Your task to perform on an android device: Turn on the flashlight Image 0: 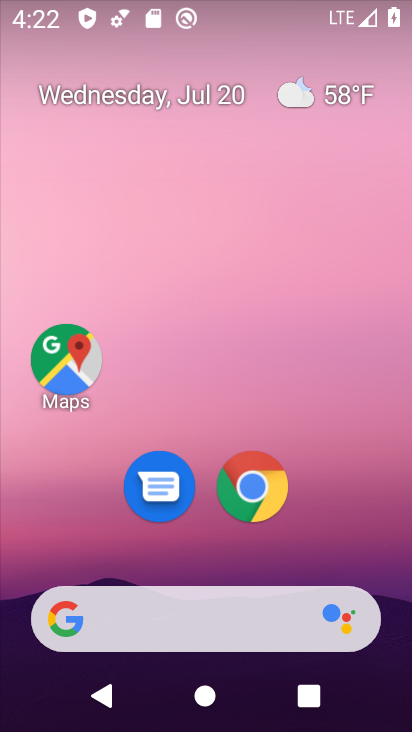
Step 0: drag from (198, 542) to (135, 22)
Your task to perform on an android device: Turn on the flashlight Image 1: 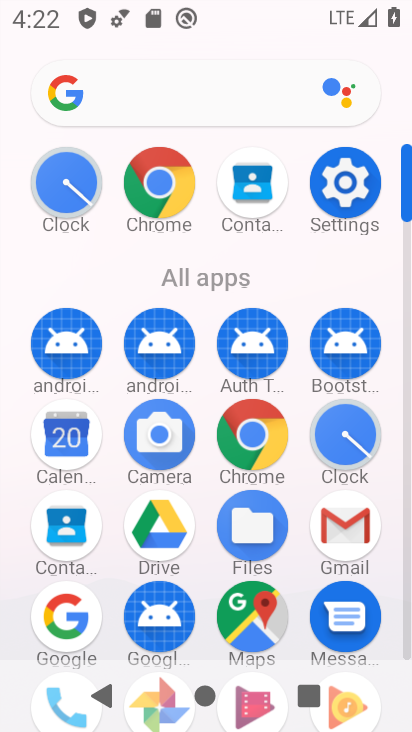
Step 1: click (356, 166)
Your task to perform on an android device: Turn on the flashlight Image 2: 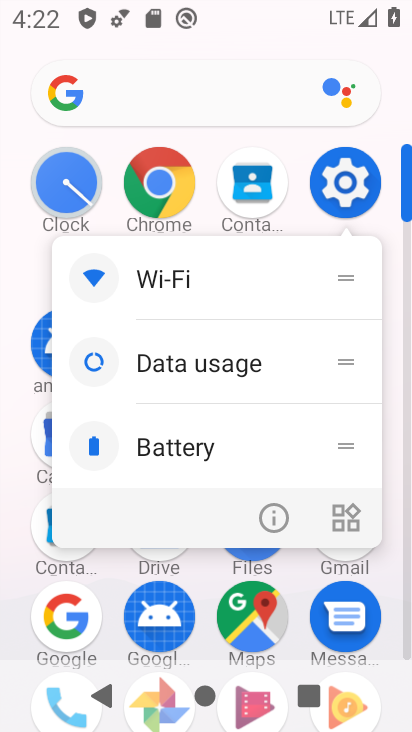
Step 2: click (342, 196)
Your task to perform on an android device: Turn on the flashlight Image 3: 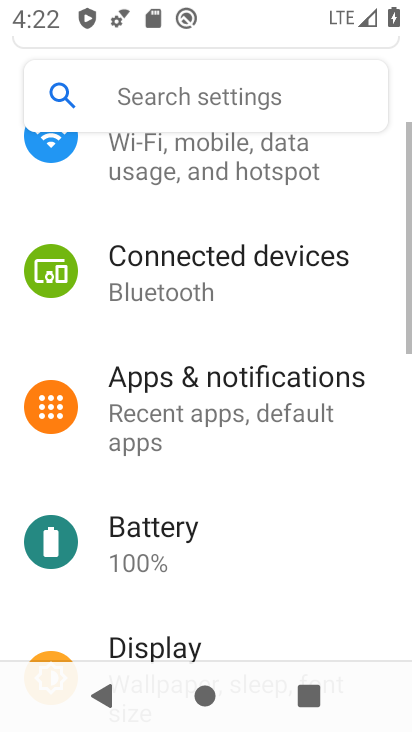
Step 3: click (207, 95)
Your task to perform on an android device: Turn on the flashlight Image 4: 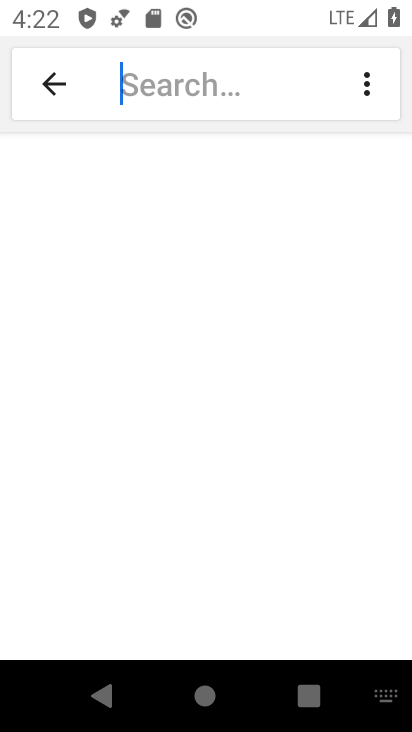
Step 4: type "flashlight"
Your task to perform on an android device: Turn on the flashlight Image 5: 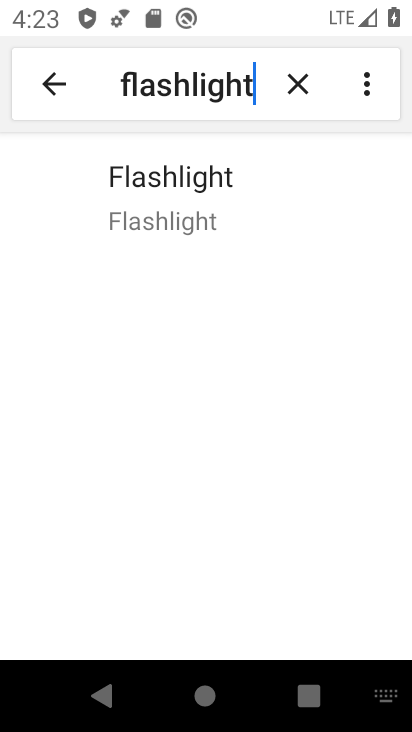
Step 5: click (150, 184)
Your task to perform on an android device: Turn on the flashlight Image 6: 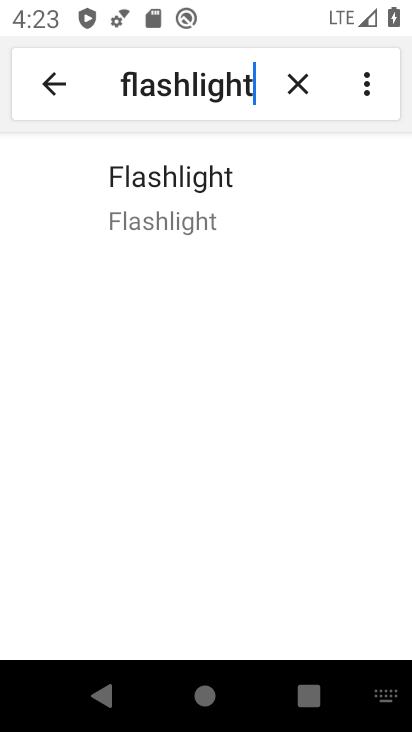
Step 6: click (148, 197)
Your task to perform on an android device: Turn on the flashlight Image 7: 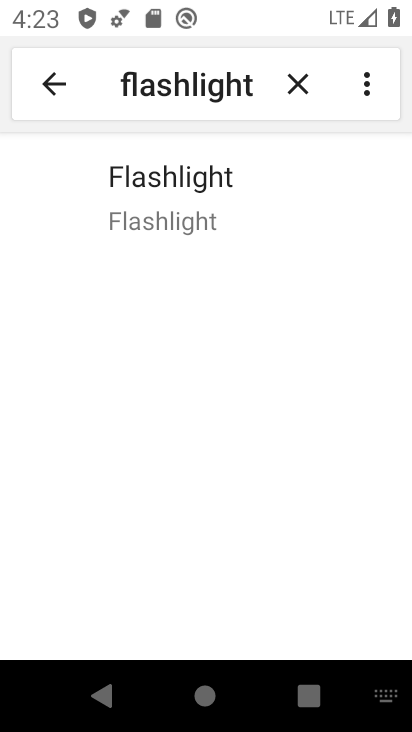
Step 7: task complete